Your task to perform on an android device: Open my contact list Image 0: 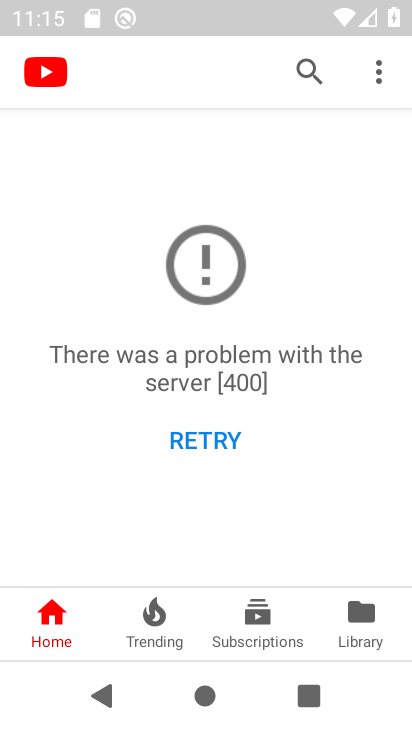
Step 0: press back button
Your task to perform on an android device: Open my contact list Image 1: 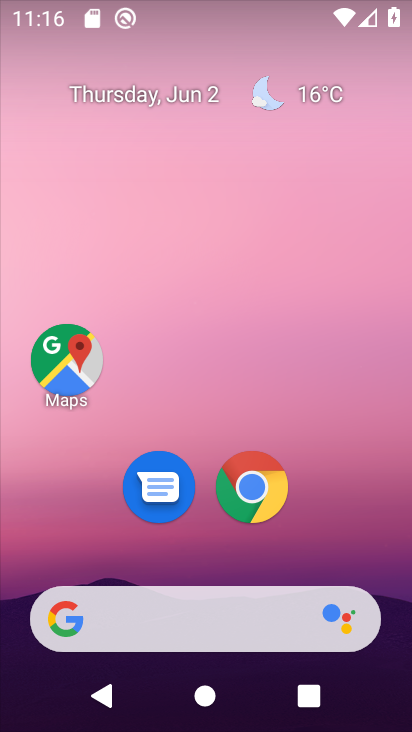
Step 1: drag from (370, 502) to (238, 220)
Your task to perform on an android device: Open my contact list Image 2: 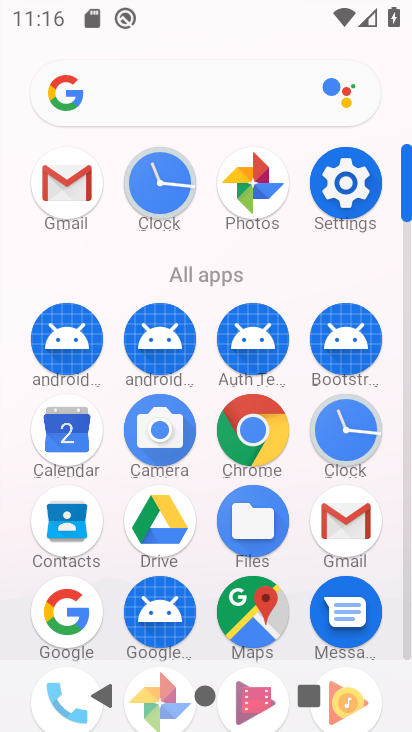
Step 2: click (68, 521)
Your task to perform on an android device: Open my contact list Image 3: 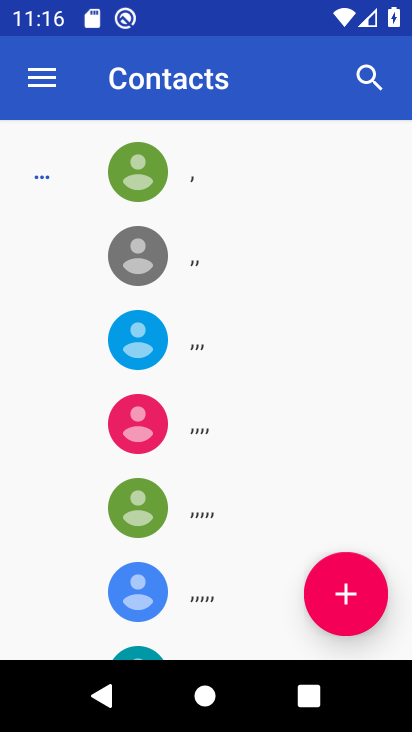
Step 3: task complete